Your task to perform on an android device: set the stopwatch Image 0: 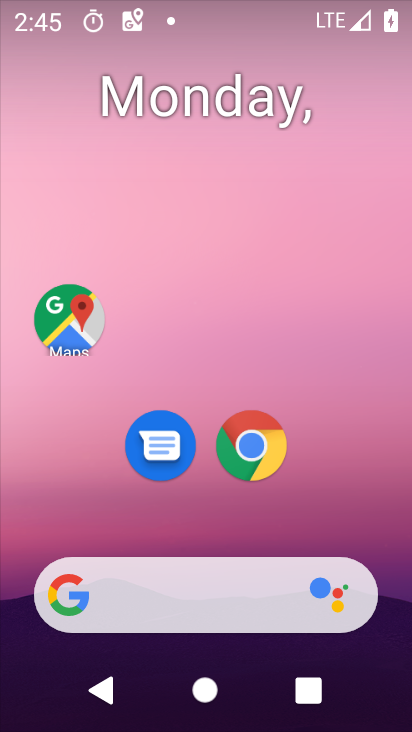
Step 0: drag from (229, 566) to (256, 105)
Your task to perform on an android device: set the stopwatch Image 1: 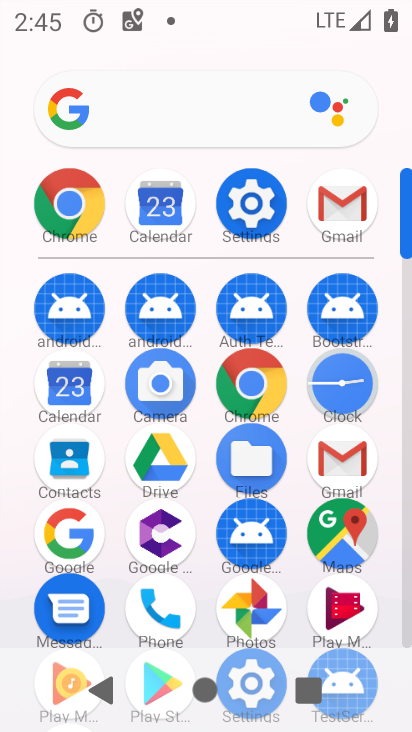
Step 1: click (341, 383)
Your task to perform on an android device: set the stopwatch Image 2: 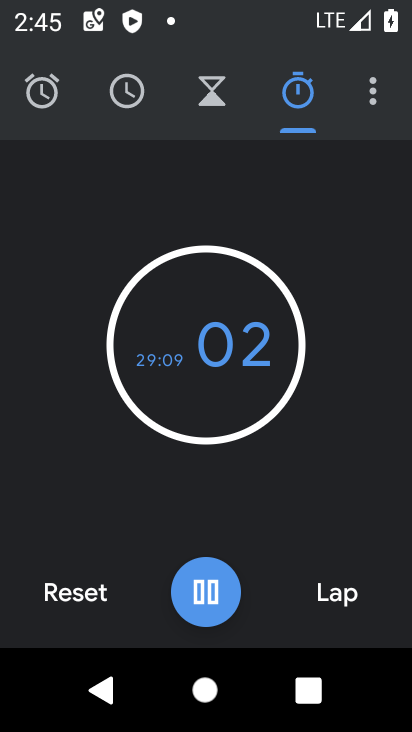
Step 2: click (66, 595)
Your task to perform on an android device: set the stopwatch Image 3: 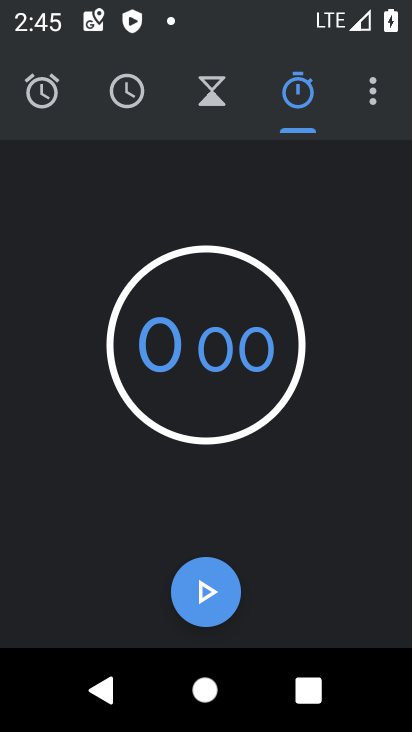
Step 3: click (207, 614)
Your task to perform on an android device: set the stopwatch Image 4: 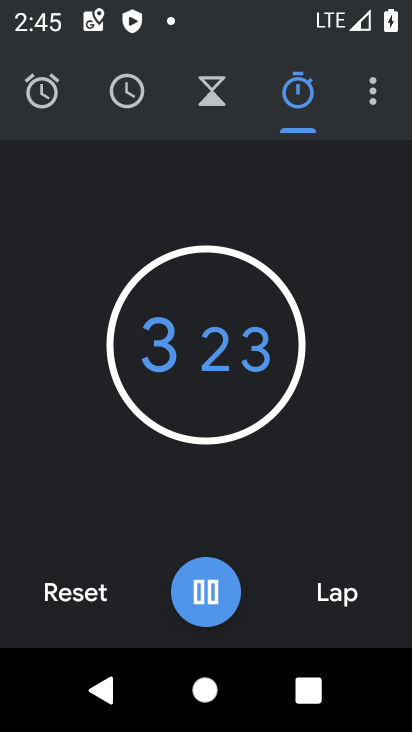
Step 4: task complete